Your task to perform on an android device: Go to Yahoo.com Image 0: 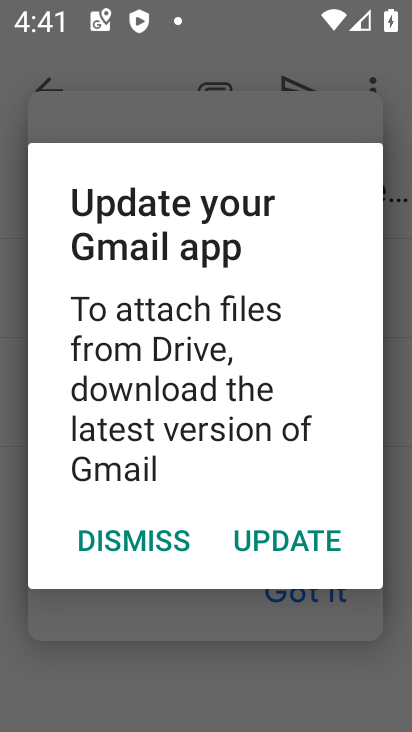
Step 0: press home button
Your task to perform on an android device: Go to Yahoo.com Image 1: 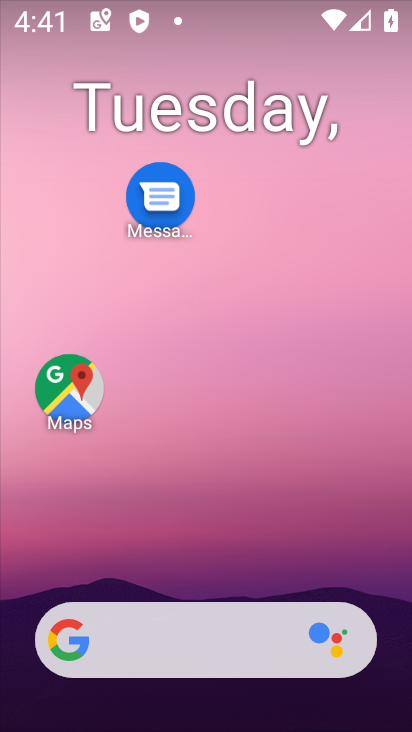
Step 1: drag from (123, 437) to (150, 172)
Your task to perform on an android device: Go to Yahoo.com Image 2: 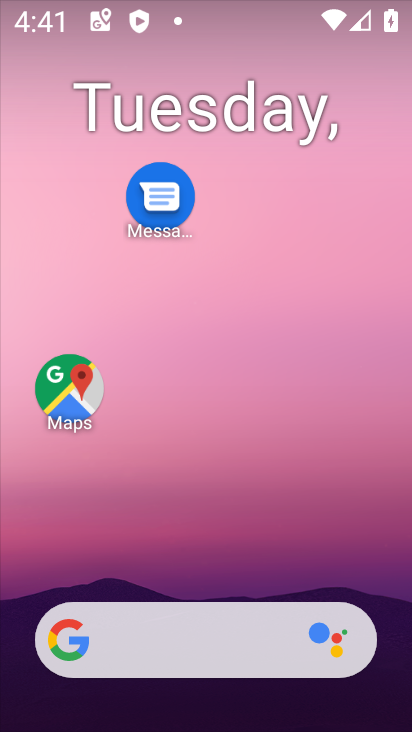
Step 2: drag from (233, 574) to (223, 117)
Your task to perform on an android device: Go to Yahoo.com Image 3: 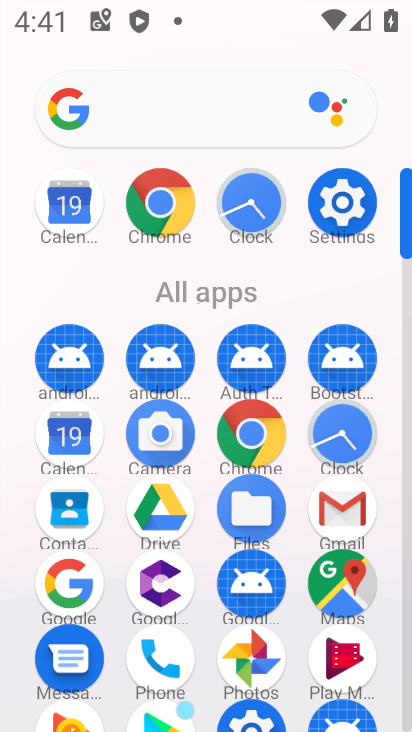
Step 3: click (145, 208)
Your task to perform on an android device: Go to Yahoo.com Image 4: 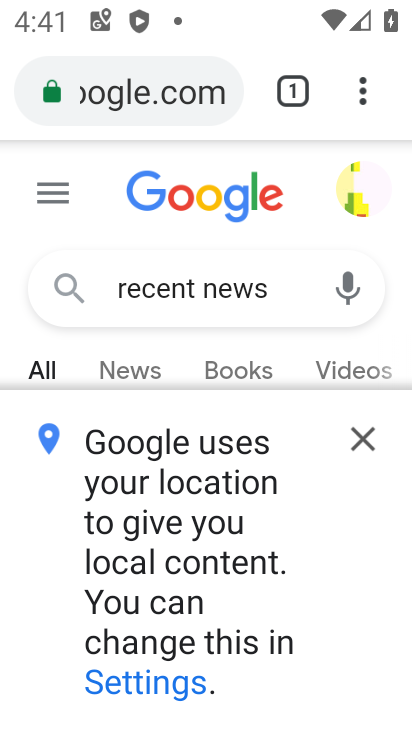
Step 4: click (164, 101)
Your task to perform on an android device: Go to Yahoo.com Image 5: 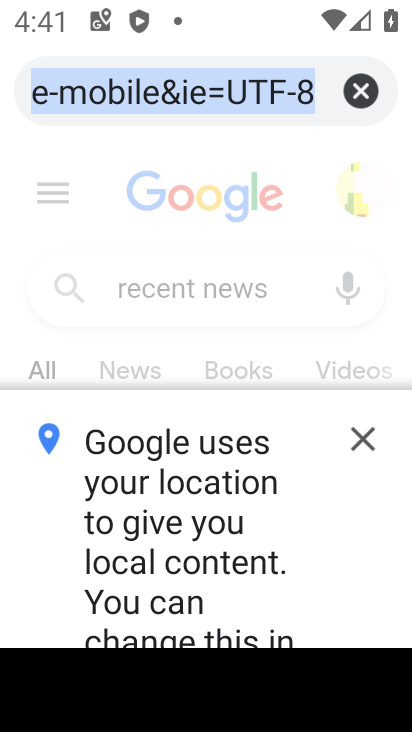
Step 5: type "yahoo.com"
Your task to perform on an android device: Go to Yahoo.com Image 6: 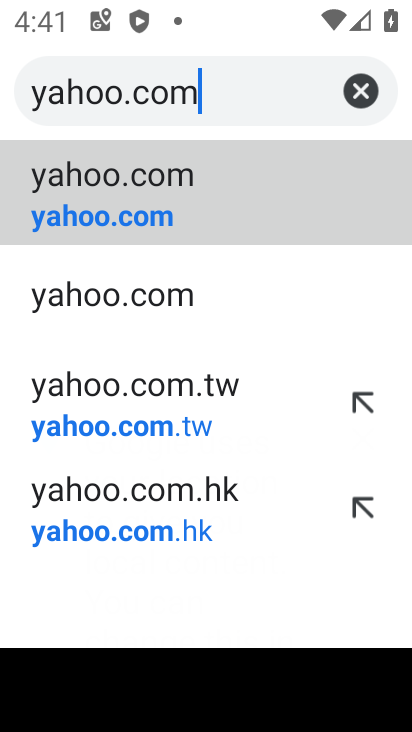
Step 6: click (200, 211)
Your task to perform on an android device: Go to Yahoo.com Image 7: 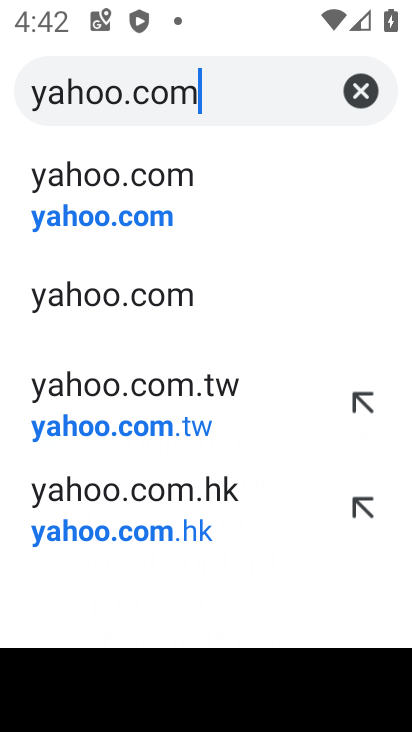
Step 7: click (120, 218)
Your task to perform on an android device: Go to Yahoo.com Image 8: 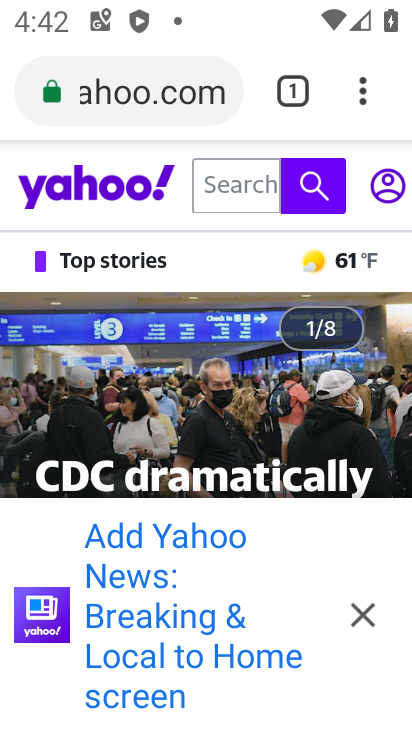
Step 8: task complete